Your task to perform on an android device: Open location settings Image 0: 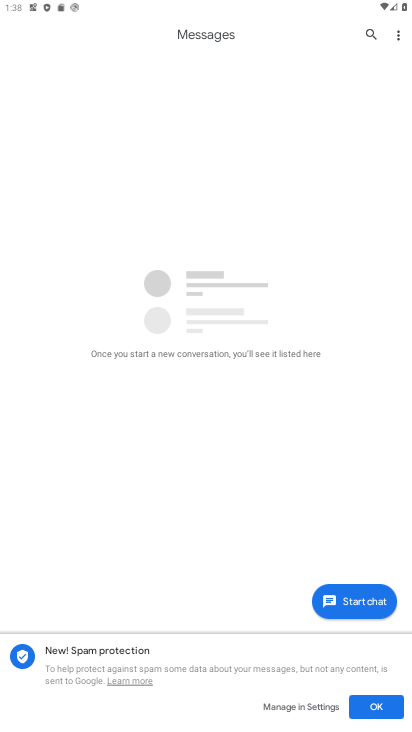
Step 0: press home button
Your task to perform on an android device: Open location settings Image 1: 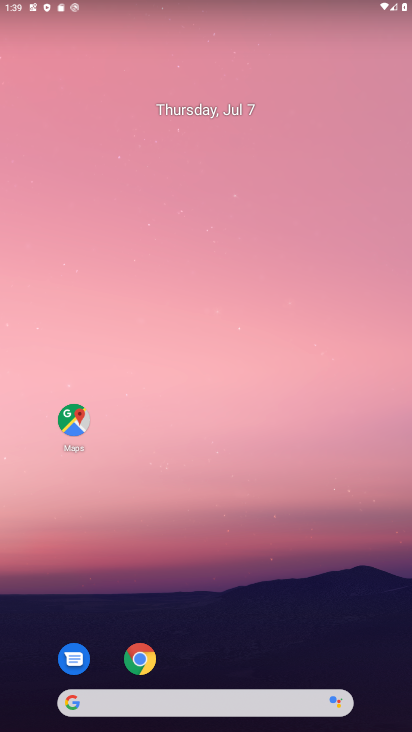
Step 1: drag from (210, 649) to (220, 49)
Your task to perform on an android device: Open location settings Image 2: 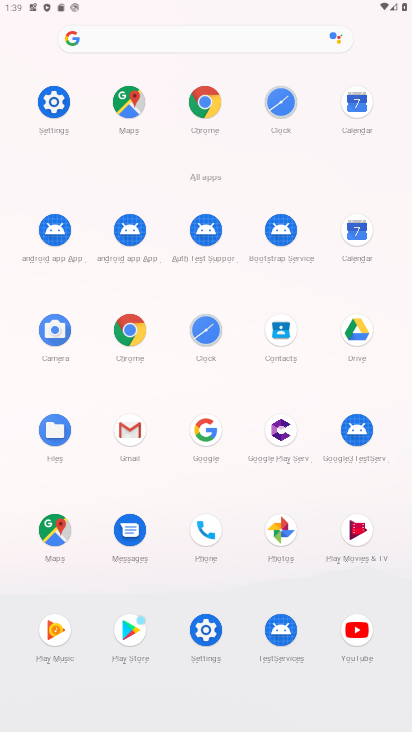
Step 2: click (52, 102)
Your task to perform on an android device: Open location settings Image 3: 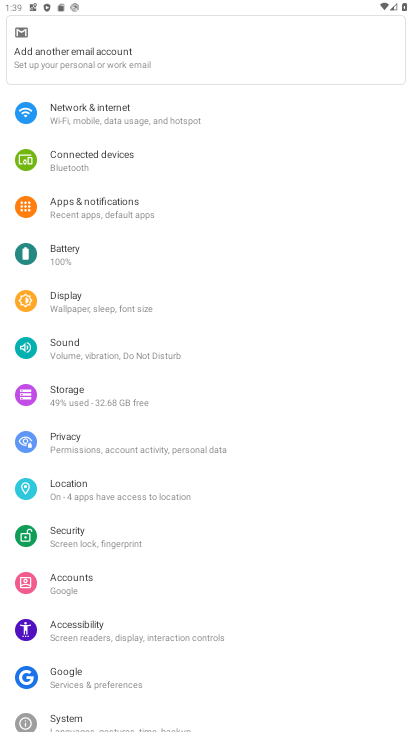
Step 3: click (78, 488)
Your task to perform on an android device: Open location settings Image 4: 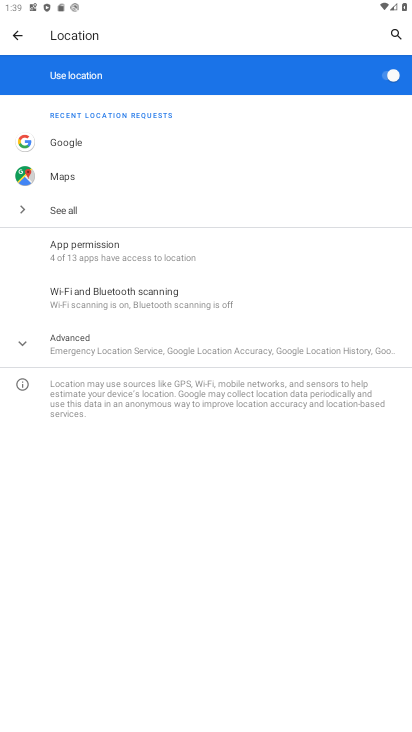
Step 4: click (22, 341)
Your task to perform on an android device: Open location settings Image 5: 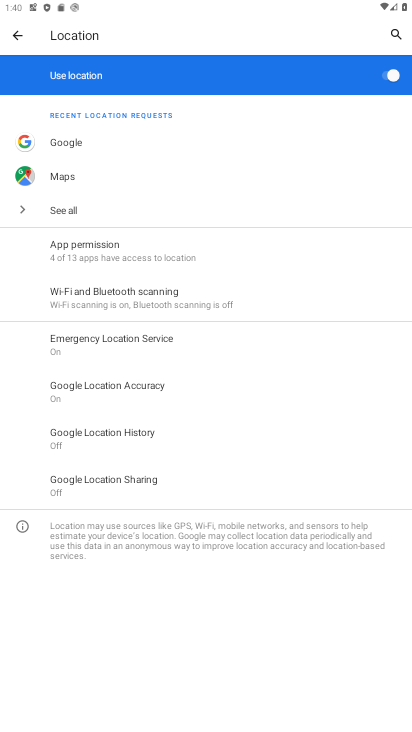
Step 5: task complete